Your task to perform on an android device: delete location history Image 0: 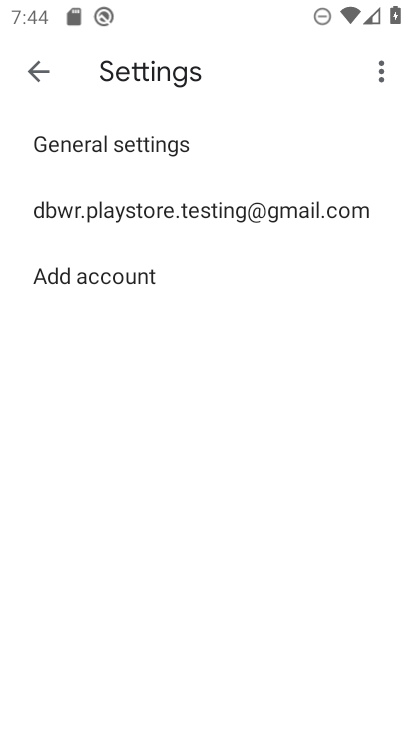
Step 0: press home button
Your task to perform on an android device: delete location history Image 1: 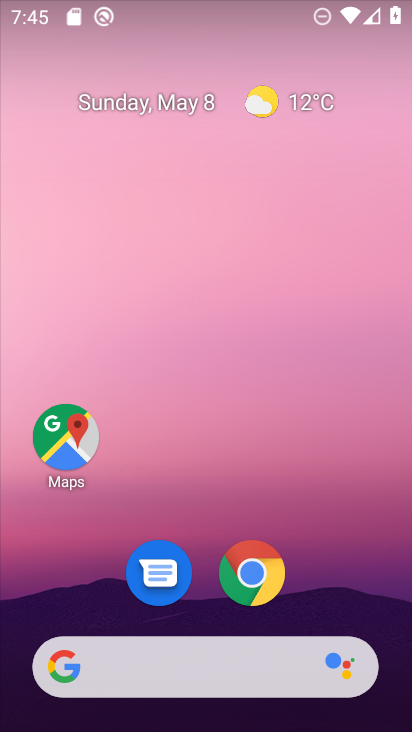
Step 1: click (66, 447)
Your task to perform on an android device: delete location history Image 2: 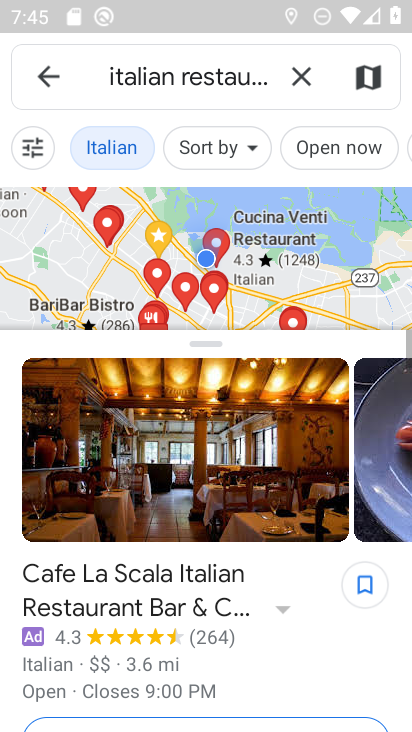
Step 2: click (304, 64)
Your task to perform on an android device: delete location history Image 3: 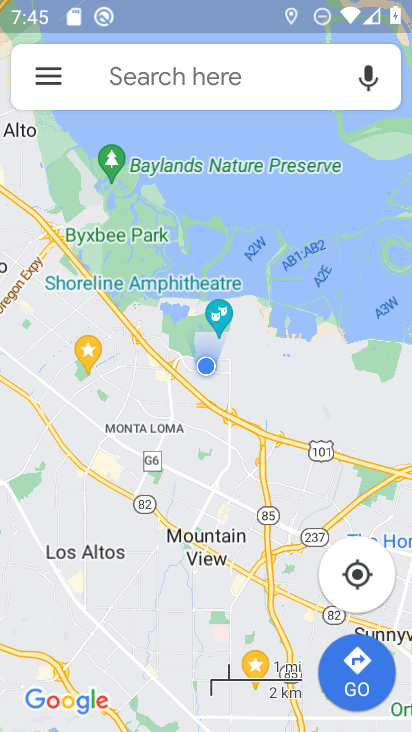
Step 3: click (52, 71)
Your task to perform on an android device: delete location history Image 4: 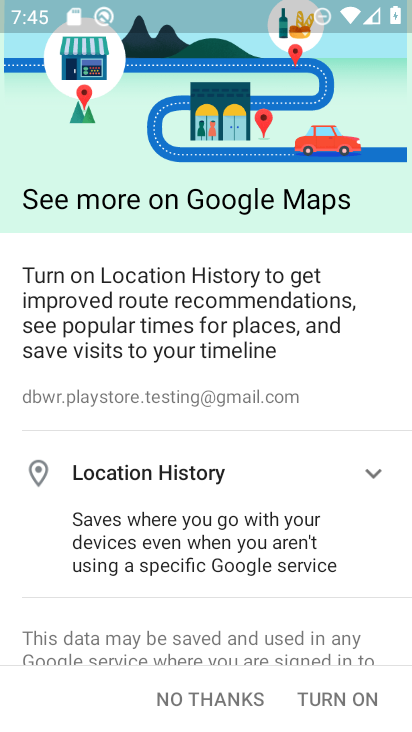
Step 4: click (177, 696)
Your task to perform on an android device: delete location history Image 5: 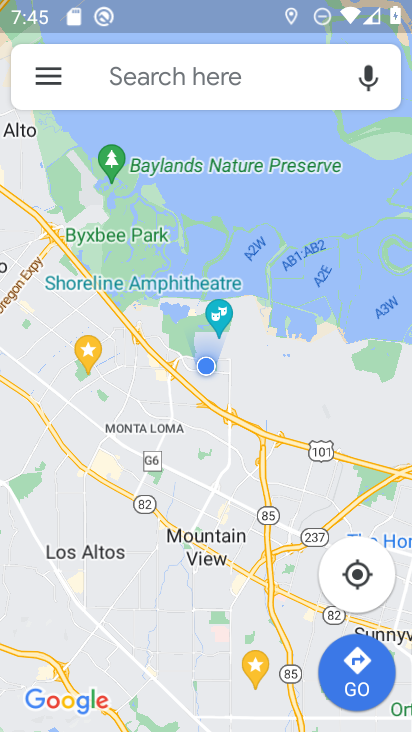
Step 5: click (51, 83)
Your task to perform on an android device: delete location history Image 6: 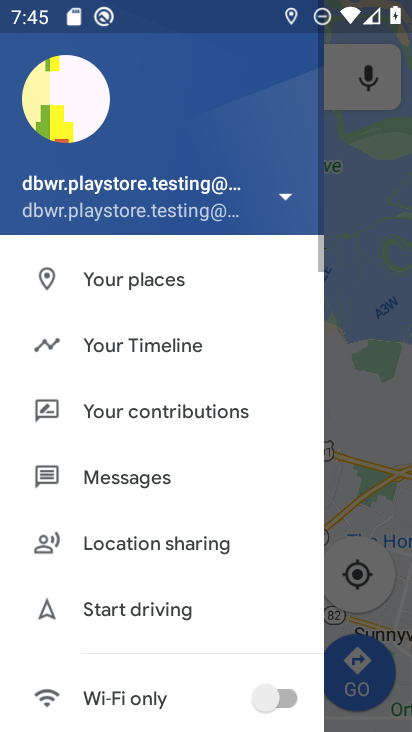
Step 6: click (108, 333)
Your task to perform on an android device: delete location history Image 7: 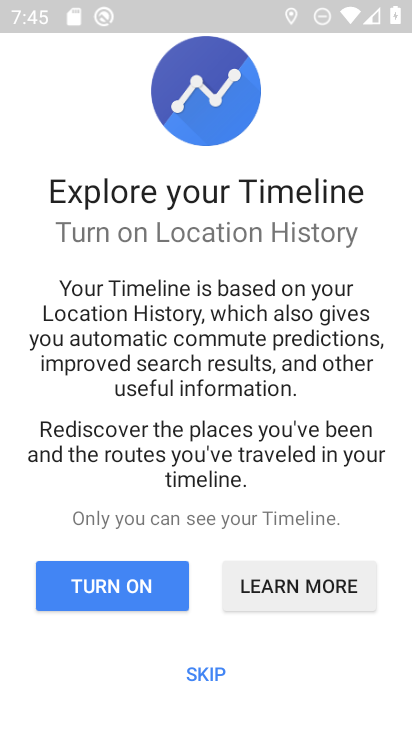
Step 7: click (203, 675)
Your task to perform on an android device: delete location history Image 8: 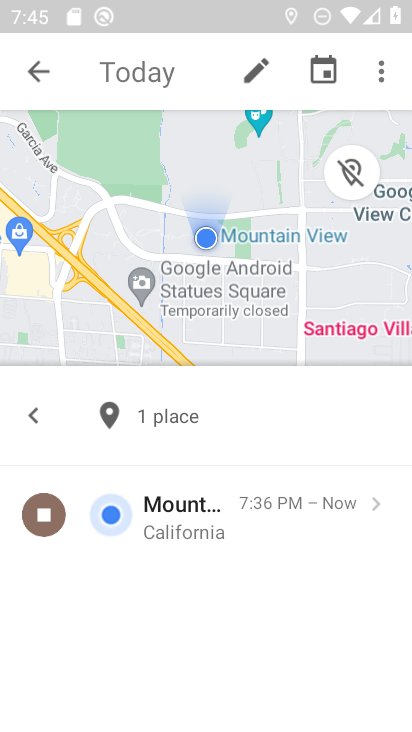
Step 8: click (383, 76)
Your task to perform on an android device: delete location history Image 9: 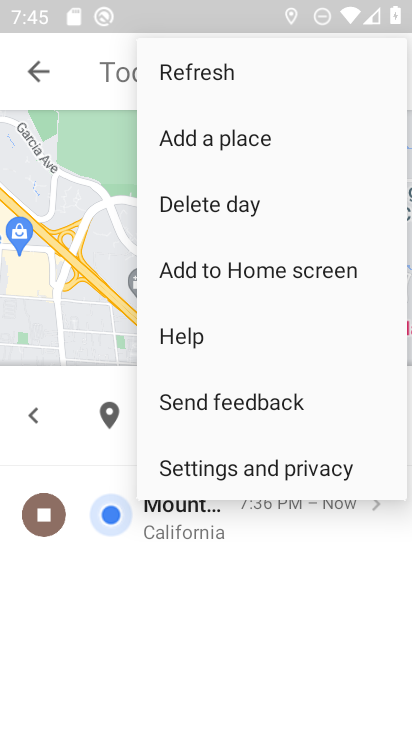
Step 9: click (206, 470)
Your task to perform on an android device: delete location history Image 10: 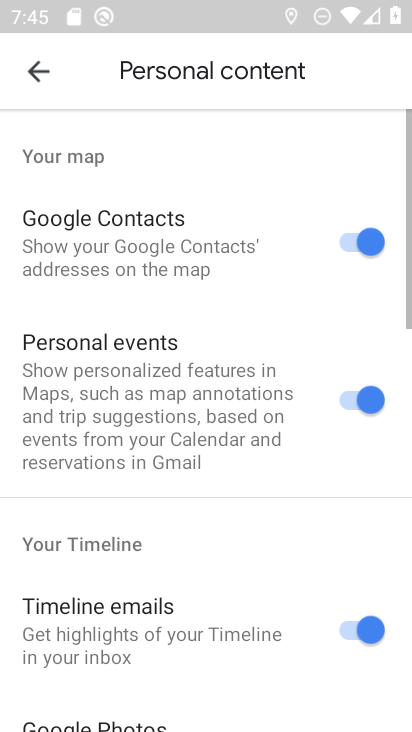
Step 10: drag from (223, 546) to (266, 111)
Your task to perform on an android device: delete location history Image 11: 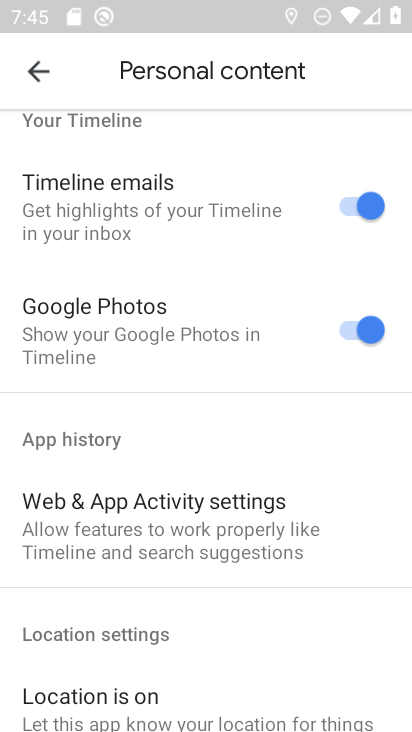
Step 11: drag from (218, 517) to (245, 109)
Your task to perform on an android device: delete location history Image 12: 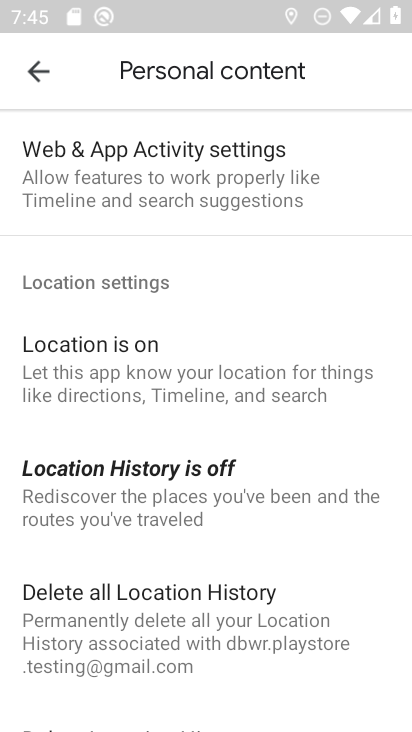
Step 12: click (180, 612)
Your task to perform on an android device: delete location history Image 13: 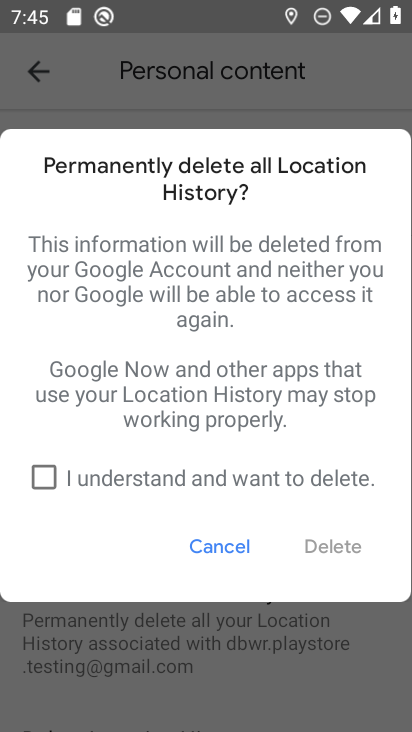
Step 13: click (42, 475)
Your task to perform on an android device: delete location history Image 14: 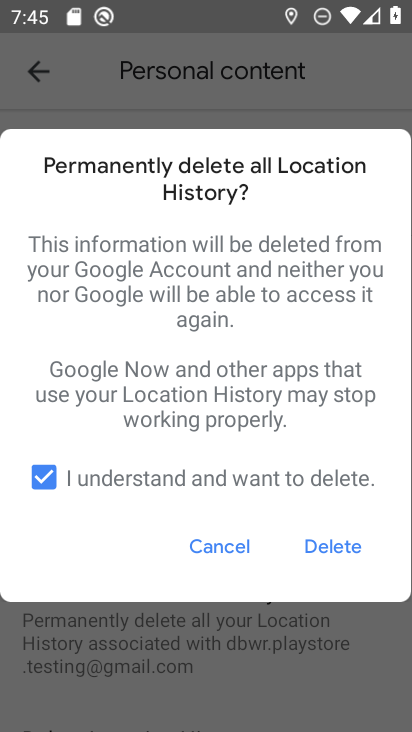
Step 14: click (347, 529)
Your task to perform on an android device: delete location history Image 15: 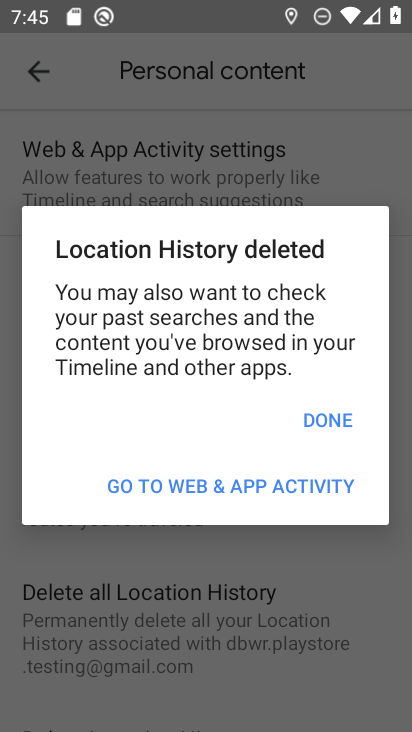
Step 15: click (331, 426)
Your task to perform on an android device: delete location history Image 16: 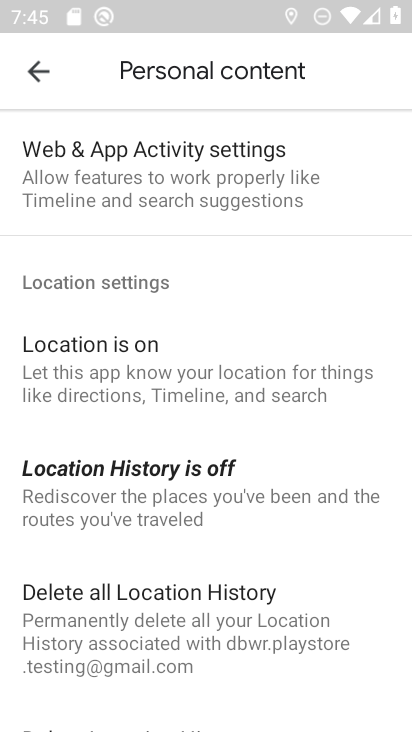
Step 16: task complete